Your task to perform on an android device: open app "Flipkart Online Shopping App" (install if not already installed), go to login, and select forgot password Image 0: 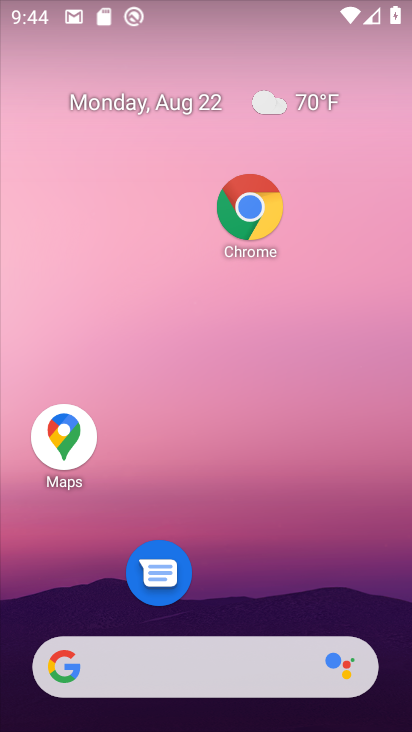
Step 0: click (319, 236)
Your task to perform on an android device: open app "Flipkart Online Shopping App" (install if not already installed), go to login, and select forgot password Image 1: 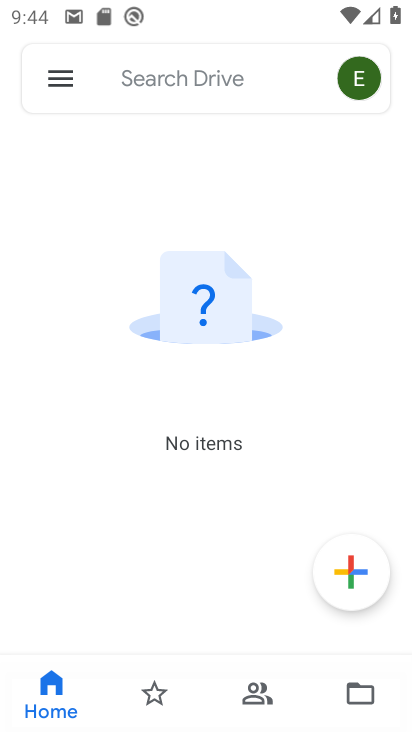
Step 1: press home button
Your task to perform on an android device: open app "Flipkart Online Shopping App" (install if not already installed), go to login, and select forgot password Image 2: 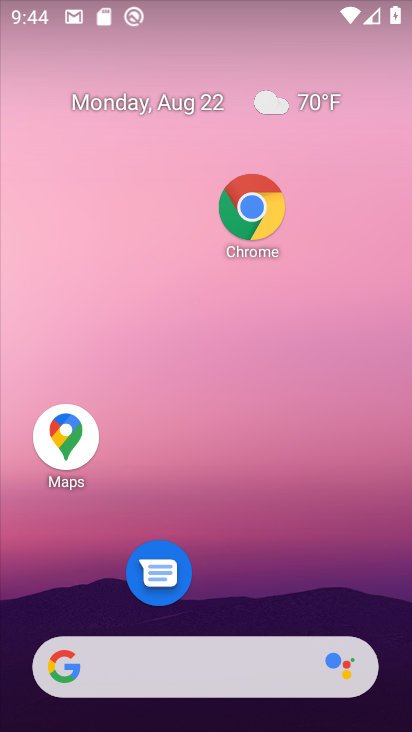
Step 2: drag from (240, 604) to (287, 110)
Your task to perform on an android device: open app "Flipkart Online Shopping App" (install if not already installed), go to login, and select forgot password Image 3: 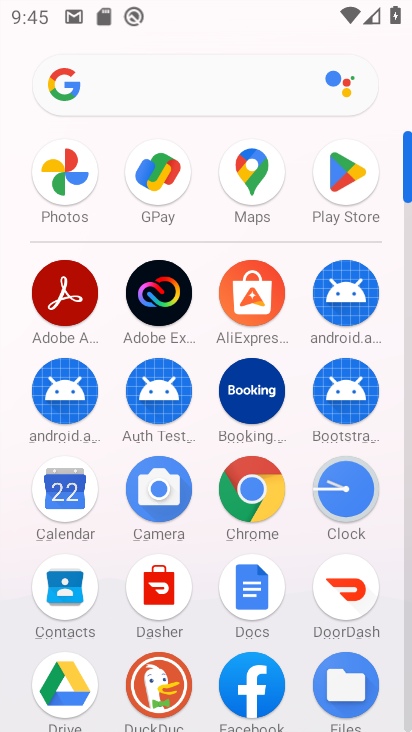
Step 3: click (355, 186)
Your task to perform on an android device: open app "Flipkart Online Shopping App" (install if not already installed), go to login, and select forgot password Image 4: 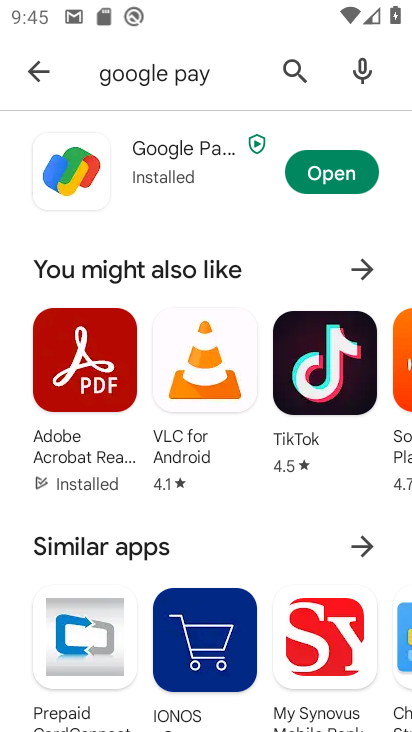
Step 4: click (163, 83)
Your task to perform on an android device: open app "Flipkart Online Shopping App" (install if not already installed), go to login, and select forgot password Image 5: 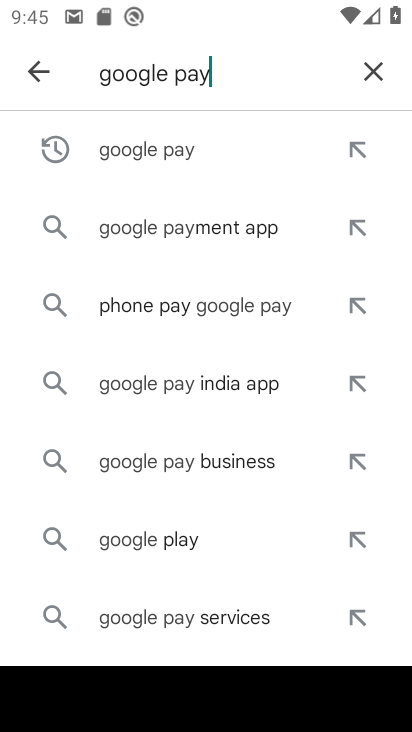
Step 5: click (380, 70)
Your task to perform on an android device: open app "Flipkart Online Shopping App" (install if not already installed), go to login, and select forgot password Image 6: 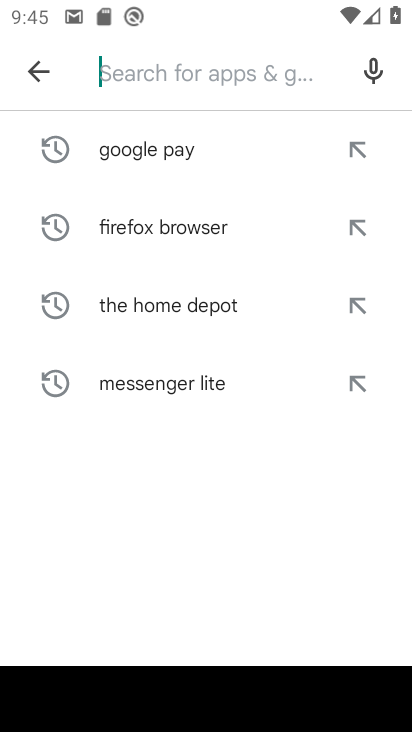
Step 6: type "flipkart"
Your task to perform on an android device: open app "Flipkart Online Shopping App" (install if not already installed), go to login, and select forgot password Image 7: 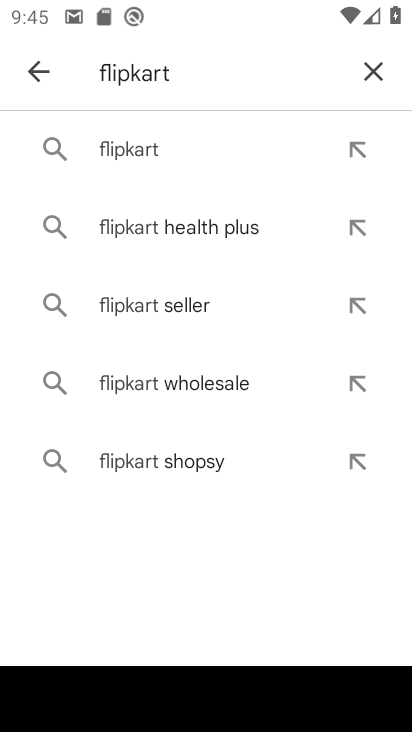
Step 7: click (147, 152)
Your task to perform on an android device: open app "Flipkart Online Shopping App" (install if not already installed), go to login, and select forgot password Image 8: 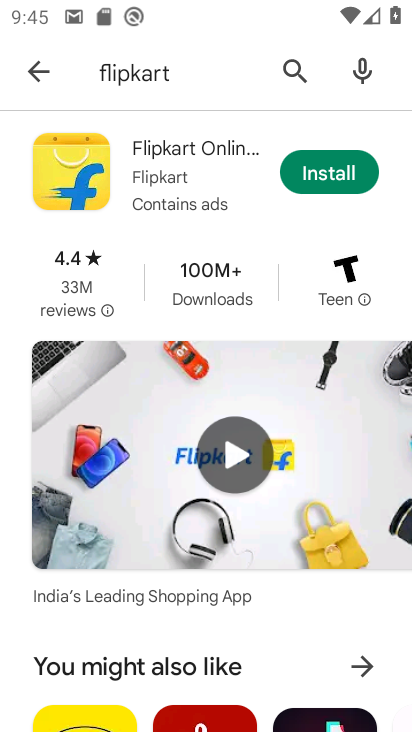
Step 8: click (320, 169)
Your task to perform on an android device: open app "Flipkart Online Shopping App" (install if not already installed), go to login, and select forgot password Image 9: 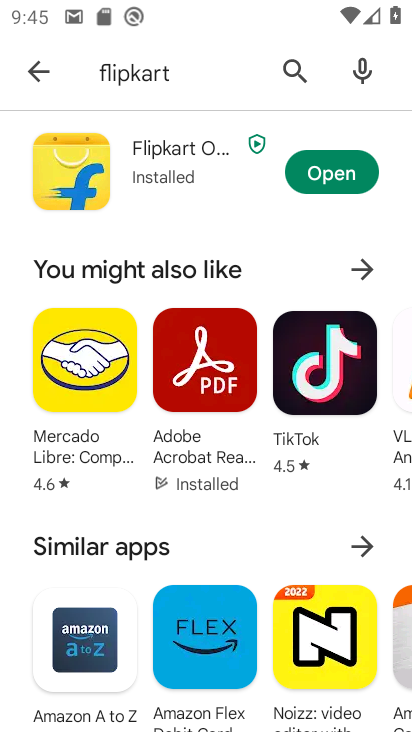
Step 9: click (344, 157)
Your task to perform on an android device: open app "Flipkart Online Shopping App" (install if not already installed), go to login, and select forgot password Image 10: 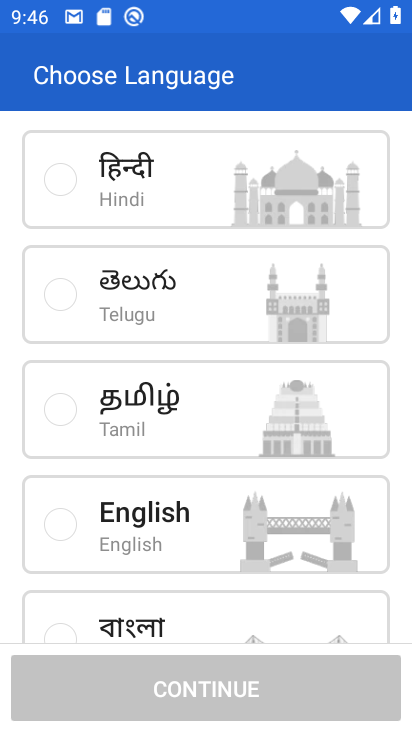
Step 10: click (157, 522)
Your task to perform on an android device: open app "Flipkart Online Shopping App" (install if not already installed), go to login, and select forgot password Image 11: 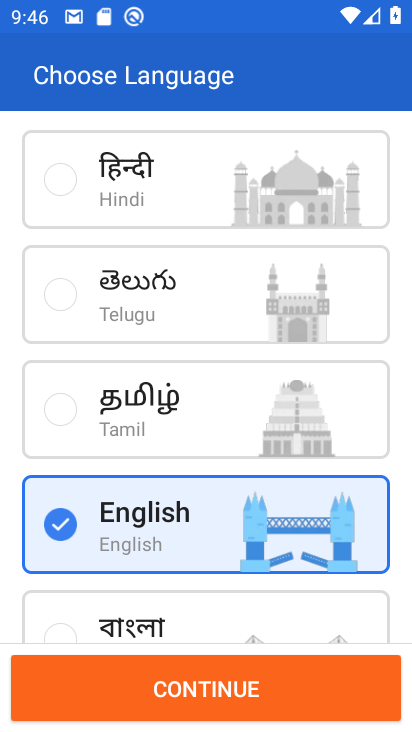
Step 11: click (161, 697)
Your task to perform on an android device: open app "Flipkart Online Shopping App" (install if not already installed), go to login, and select forgot password Image 12: 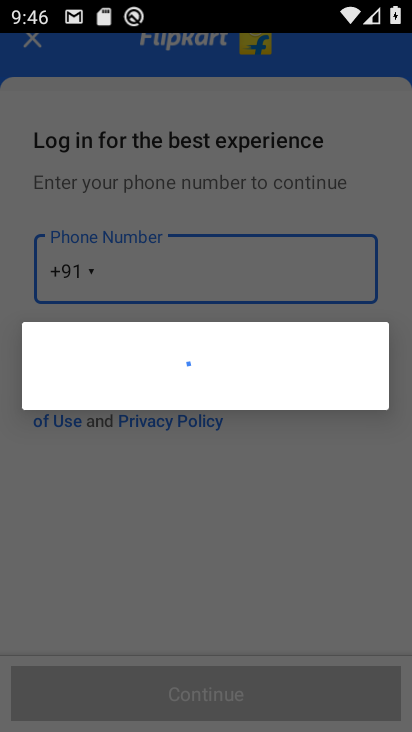
Step 12: click (344, 340)
Your task to perform on an android device: open app "Flipkart Online Shopping App" (install if not already installed), go to login, and select forgot password Image 13: 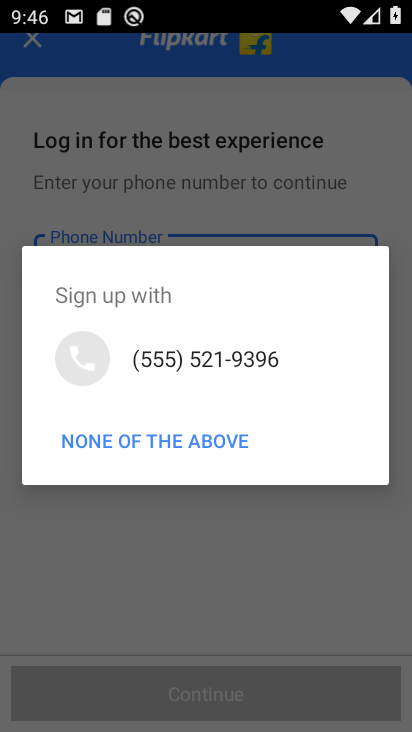
Step 13: click (158, 437)
Your task to perform on an android device: open app "Flipkart Online Shopping App" (install if not already installed), go to login, and select forgot password Image 14: 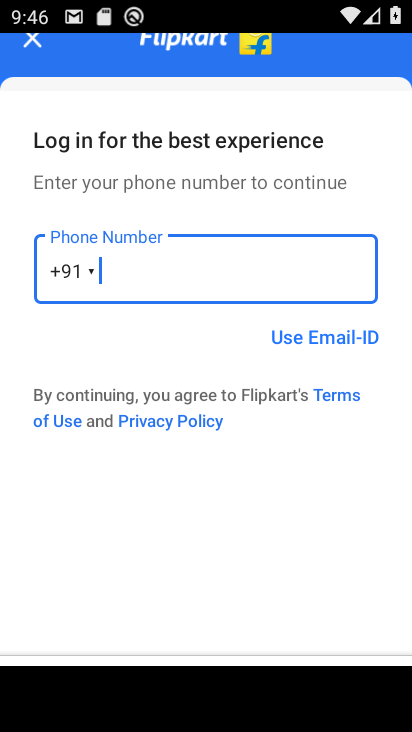
Step 14: click (285, 332)
Your task to perform on an android device: open app "Flipkart Online Shopping App" (install if not already installed), go to login, and select forgot password Image 15: 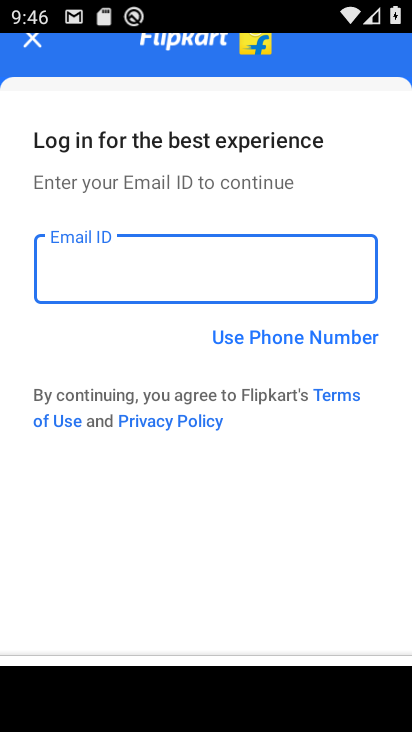
Step 15: task complete